Your task to perform on an android device: Open the phone app and click the voicemail tab. Image 0: 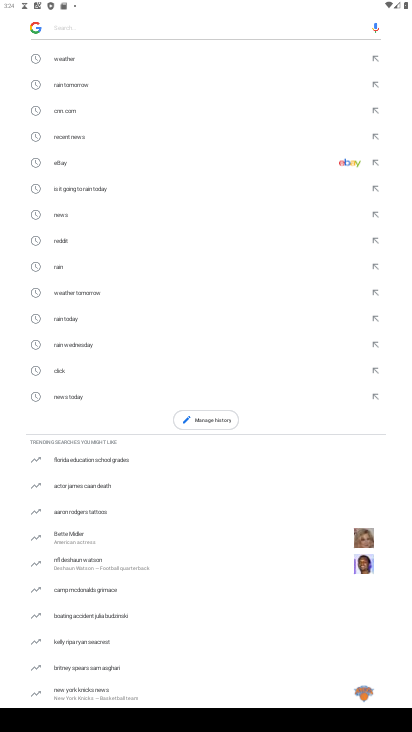
Step 0: press home button
Your task to perform on an android device: Open the phone app and click the voicemail tab. Image 1: 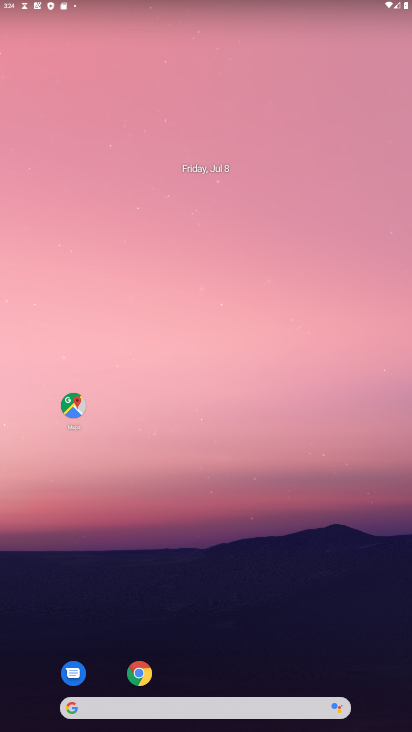
Step 1: drag from (210, 661) to (257, 19)
Your task to perform on an android device: Open the phone app and click the voicemail tab. Image 2: 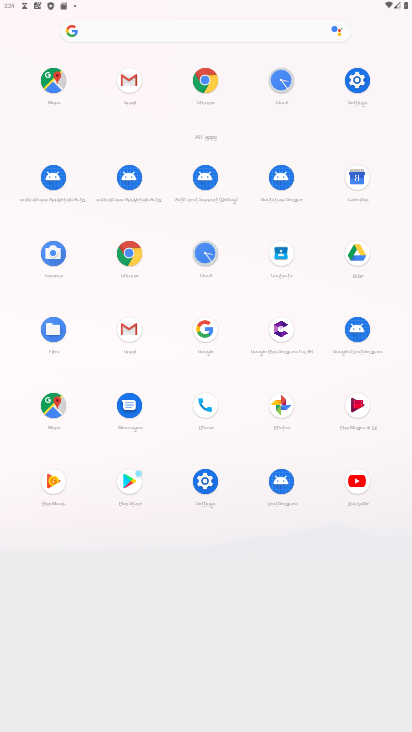
Step 2: click (210, 409)
Your task to perform on an android device: Open the phone app and click the voicemail tab. Image 3: 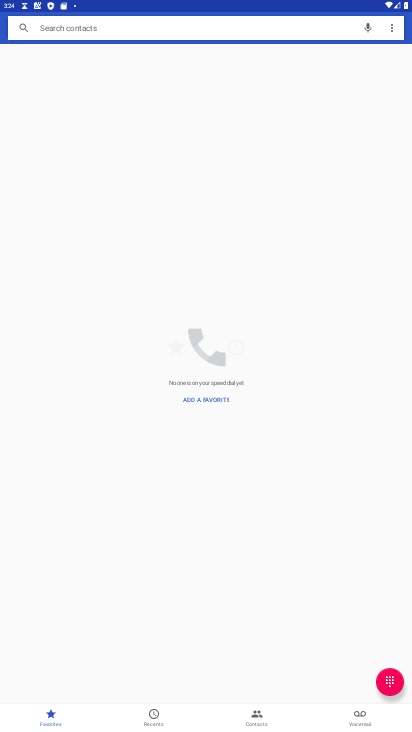
Step 3: click (359, 705)
Your task to perform on an android device: Open the phone app and click the voicemail tab. Image 4: 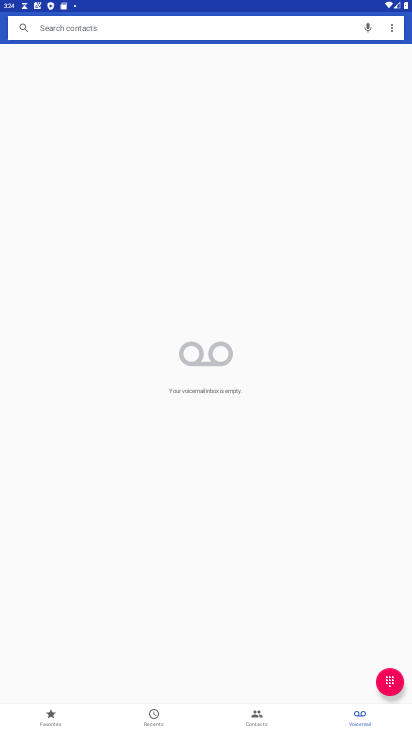
Step 4: task complete